Your task to perform on an android device: uninstall "Viber Messenger" Image 0: 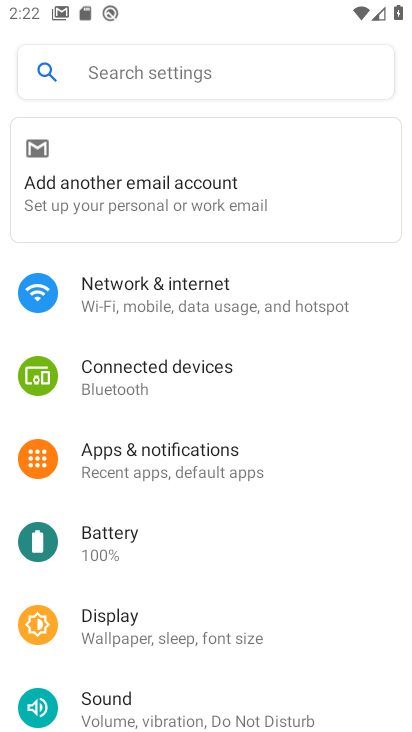
Step 0: press back button
Your task to perform on an android device: uninstall "Viber Messenger" Image 1: 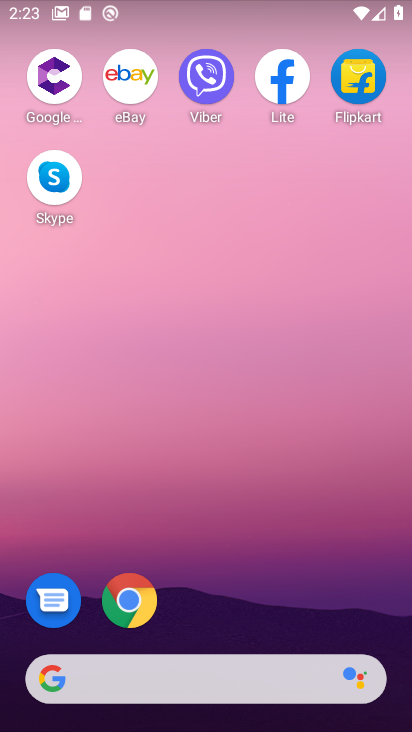
Step 1: drag from (192, 626) to (304, 135)
Your task to perform on an android device: uninstall "Viber Messenger" Image 2: 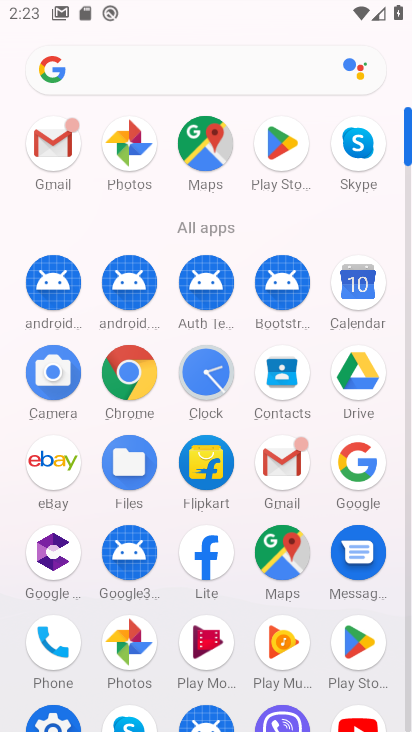
Step 2: drag from (264, 672) to (327, 312)
Your task to perform on an android device: uninstall "Viber Messenger" Image 3: 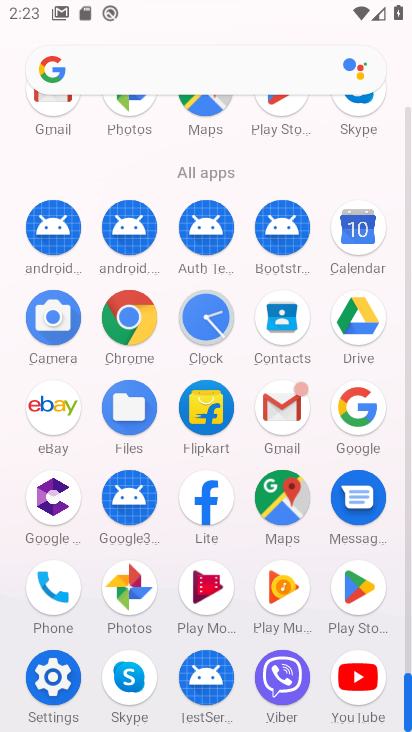
Step 3: click (284, 679)
Your task to perform on an android device: uninstall "Viber Messenger" Image 4: 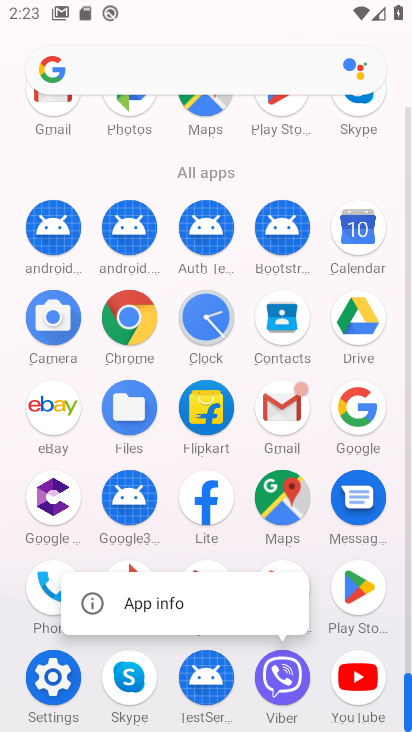
Step 4: click (112, 595)
Your task to perform on an android device: uninstall "Viber Messenger" Image 5: 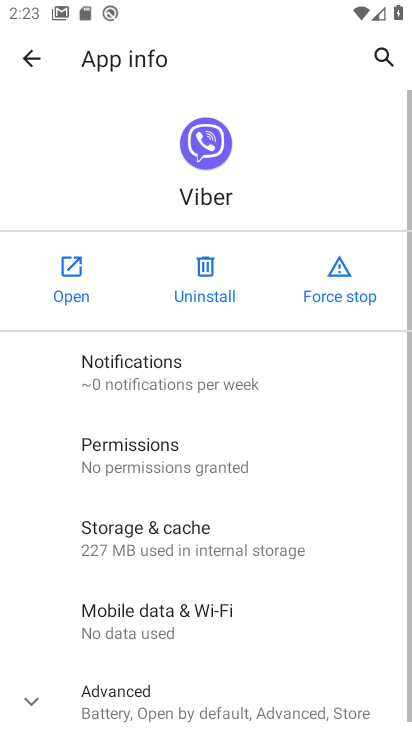
Step 5: drag from (193, 695) to (271, 308)
Your task to perform on an android device: uninstall "Viber Messenger" Image 6: 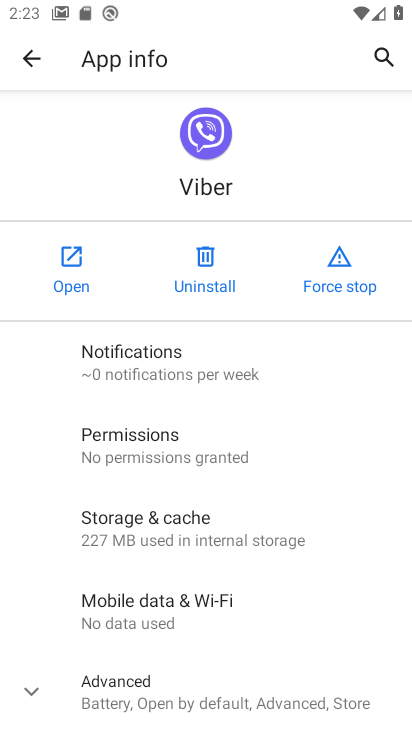
Step 6: click (212, 256)
Your task to perform on an android device: uninstall "Viber Messenger" Image 7: 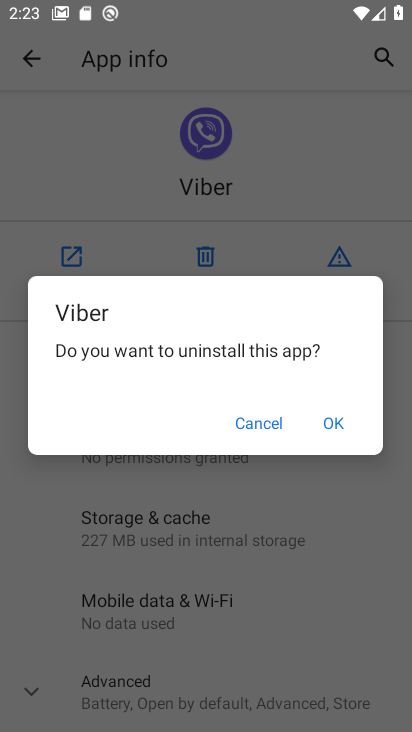
Step 7: click (320, 436)
Your task to perform on an android device: uninstall "Viber Messenger" Image 8: 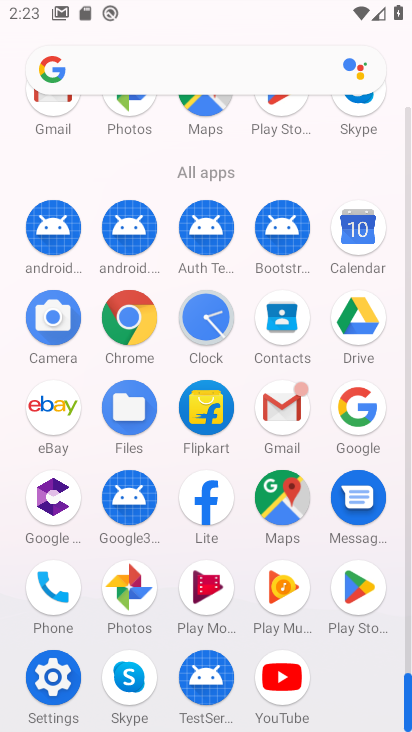
Step 8: task complete